Your task to perform on an android device: turn on airplane mode Image 0: 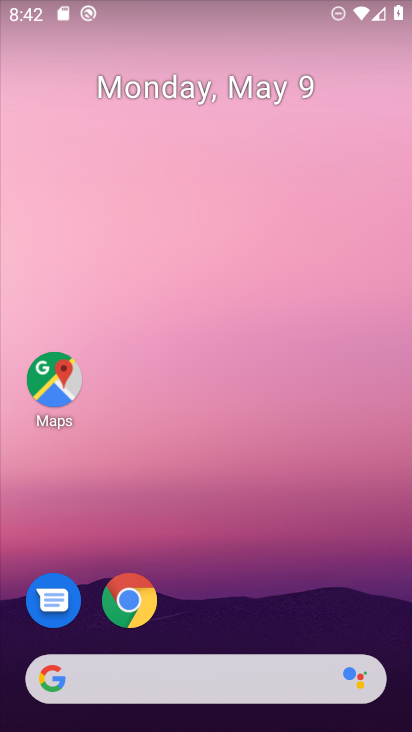
Step 0: drag from (206, 581) to (189, 2)
Your task to perform on an android device: turn on airplane mode Image 1: 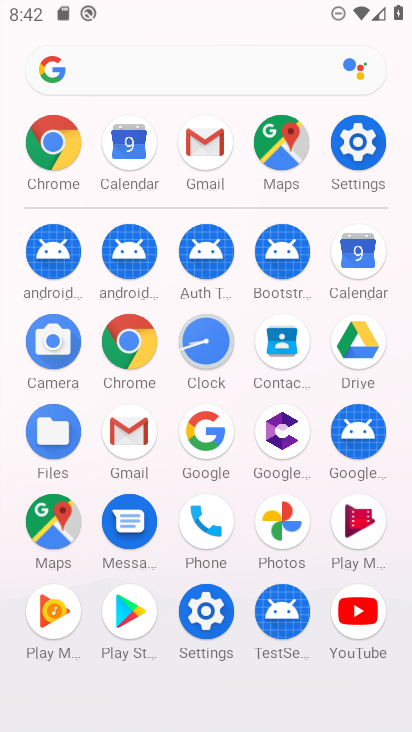
Step 1: click (204, 606)
Your task to perform on an android device: turn on airplane mode Image 2: 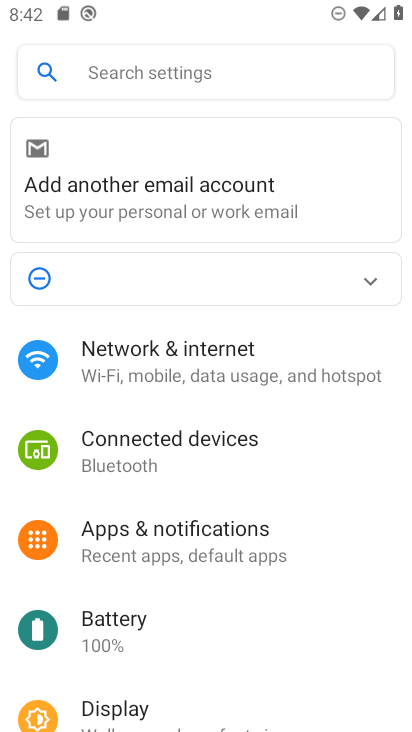
Step 2: click (186, 348)
Your task to perform on an android device: turn on airplane mode Image 3: 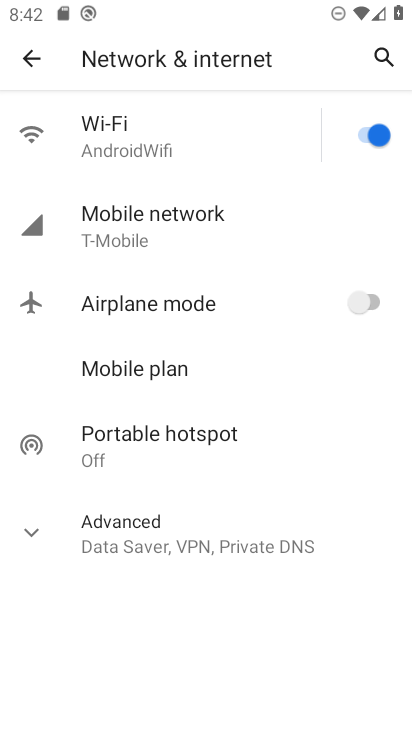
Step 3: click (38, 529)
Your task to perform on an android device: turn on airplane mode Image 4: 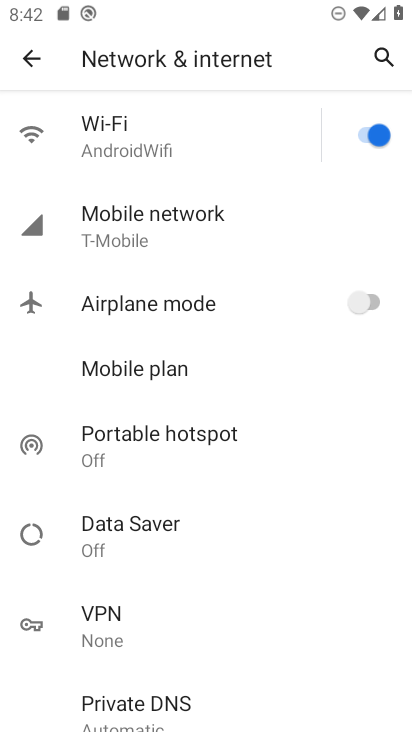
Step 4: click (145, 303)
Your task to perform on an android device: turn on airplane mode Image 5: 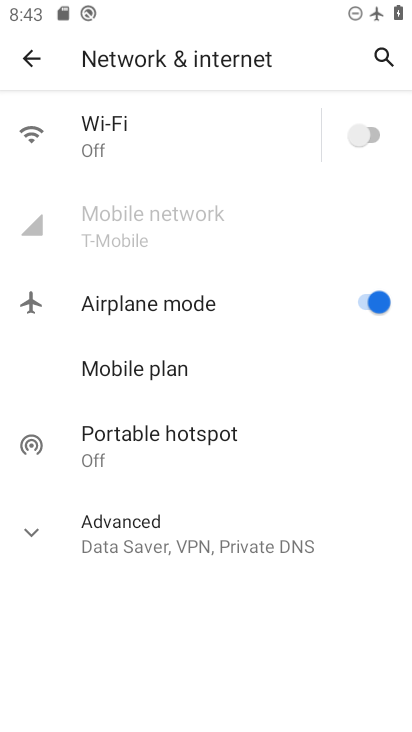
Step 5: task complete